Your task to perform on an android device: Clear the cart on walmart. Search for "logitech g pro" on walmart, select the first entry, and add it to the cart. Image 0: 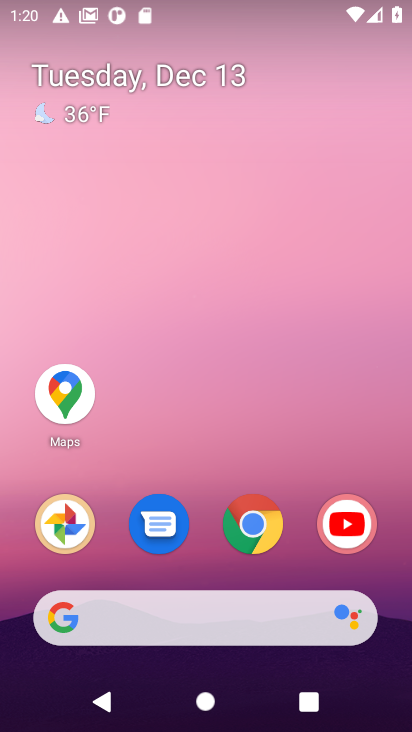
Step 0: click (260, 530)
Your task to perform on an android device: Clear the cart on walmart. Search for "logitech g pro" on walmart, select the first entry, and add it to the cart. Image 1: 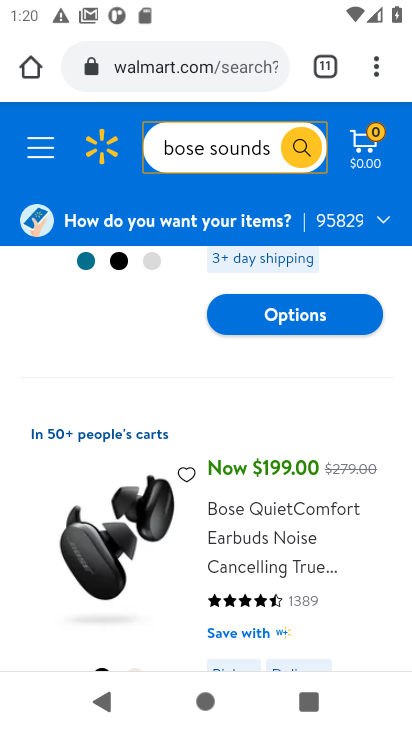
Step 1: click (362, 145)
Your task to perform on an android device: Clear the cart on walmart. Search for "logitech g pro" on walmart, select the first entry, and add it to the cart. Image 2: 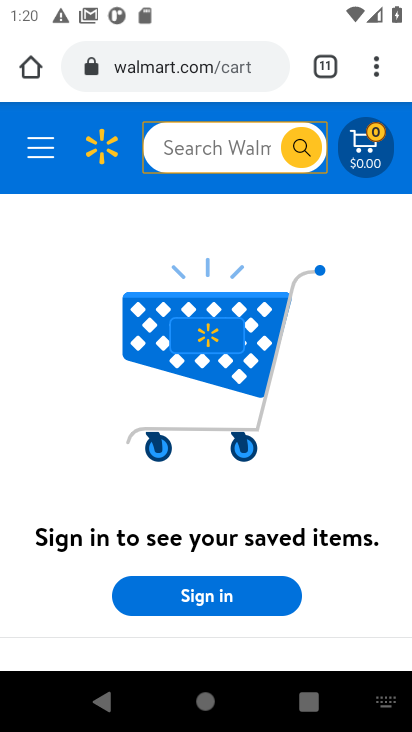
Step 2: click (185, 147)
Your task to perform on an android device: Clear the cart on walmart. Search for "logitech g pro" on walmart, select the first entry, and add it to the cart. Image 3: 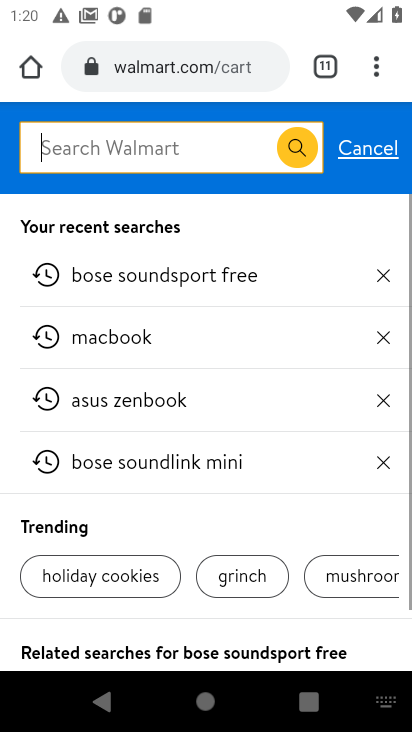
Step 3: type "logitech g pro"
Your task to perform on an android device: Clear the cart on walmart. Search for "logitech g pro" on walmart, select the first entry, and add it to the cart. Image 4: 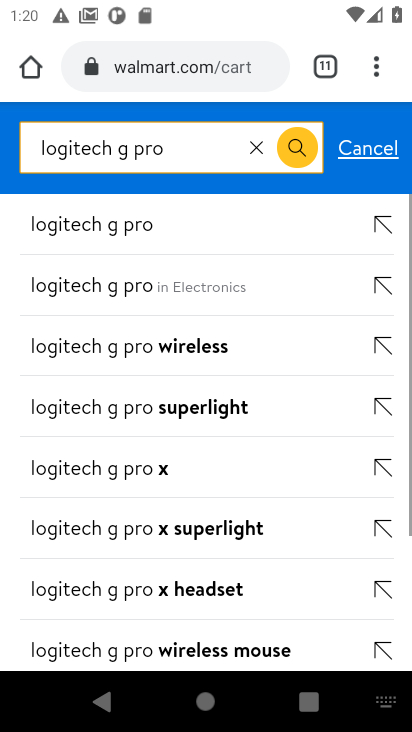
Step 4: click (97, 231)
Your task to perform on an android device: Clear the cart on walmart. Search for "logitech g pro" on walmart, select the first entry, and add it to the cart. Image 5: 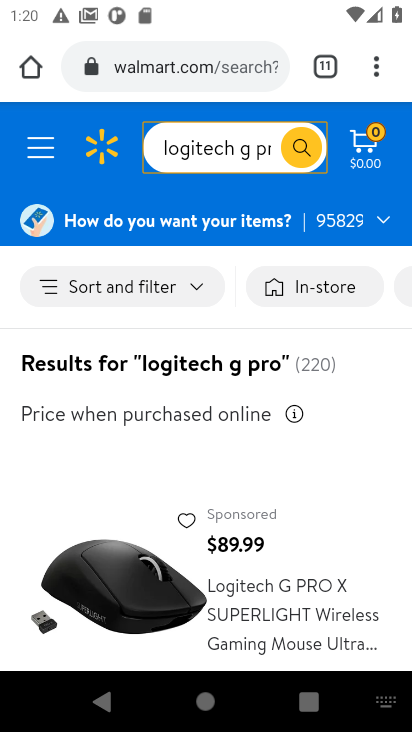
Step 5: drag from (217, 493) to (201, 281)
Your task to perform on an android device: Clear the cart on walmart. Search for "logitech g pro" on walmart, select the first entry, and add it to the cart. Image 6: 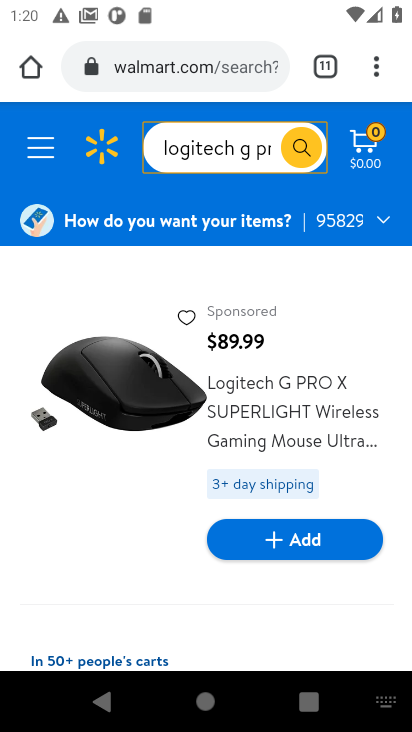
Step 6: click (273, 543)
Your task to perform on an android device: Clear the cart on walmart. Search for "logitech g pro" on walmart, select the first entry, and add it to the cart. Image 7: 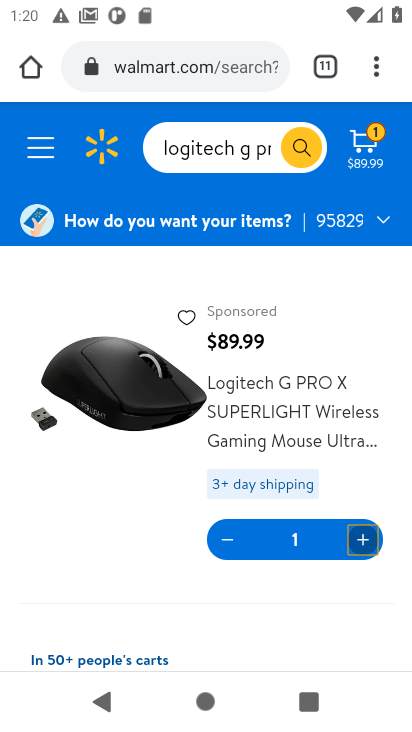
Step 7: task complete